Your task to perform on an android device: Show me recent news Image 0: 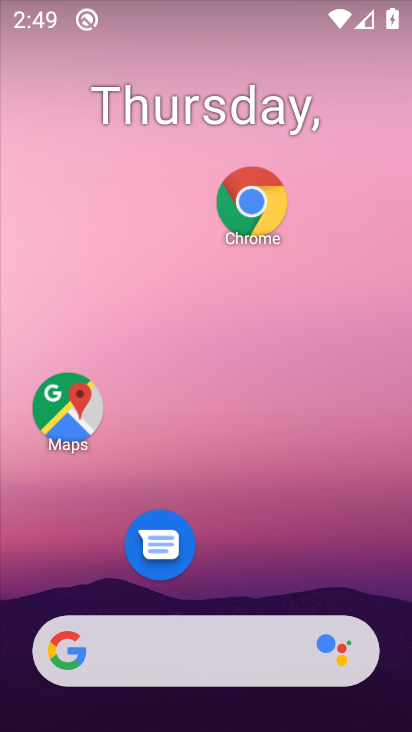
Step 0: drag from (191, 606) to (236, 234)
Your task to perform on an android device: Show me recent news Image 1: 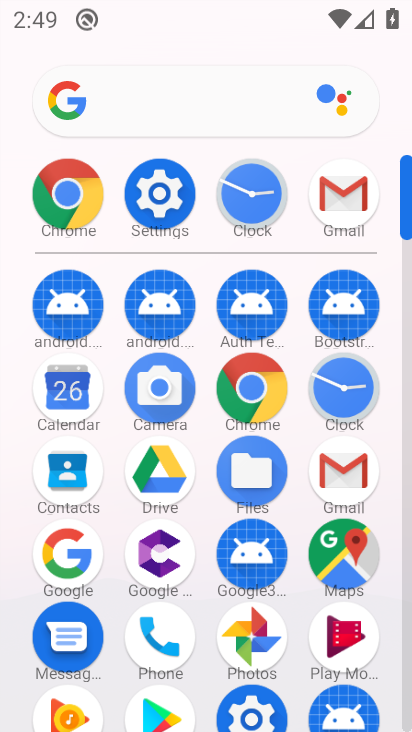
Step 1: click (76, 543)
Your task to perform on an android device: Show me recent news Image 2: 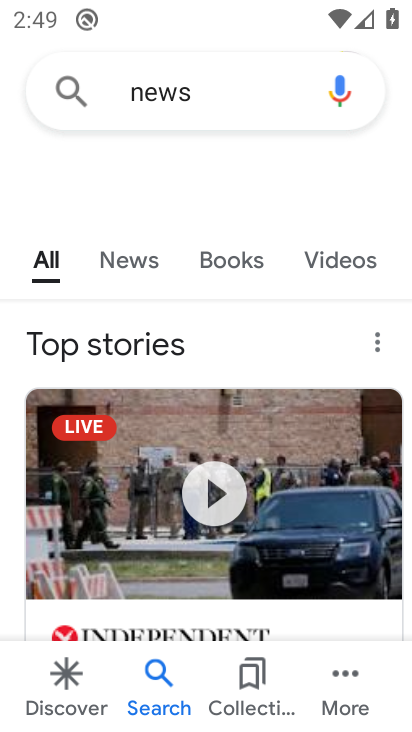
Step 2: click (199, 89)
Your task to perform on an android device: Show me recent news Image 3: 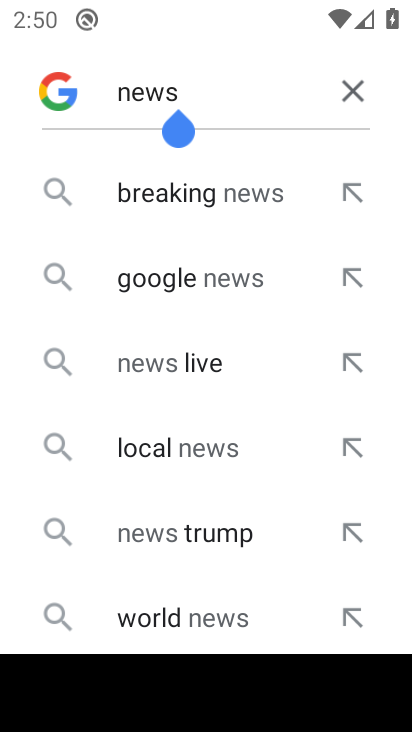
Step 3: click (344, 92)
Your task to perform on an android device: Show me recent news Image 4: 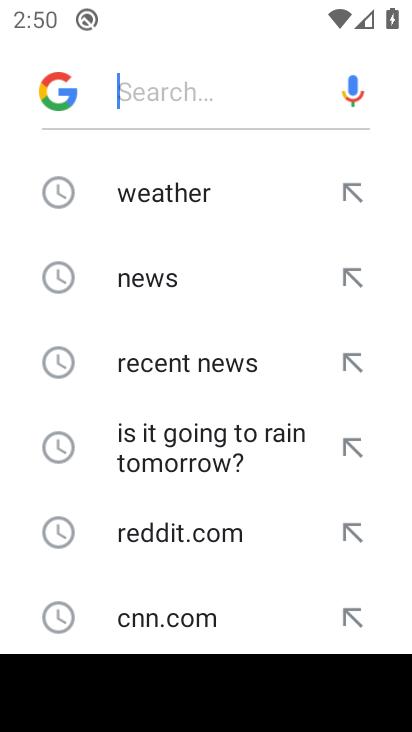
Step 4: click (137, 413)
Your task to perform on an android device: Show me recent news Image 5: 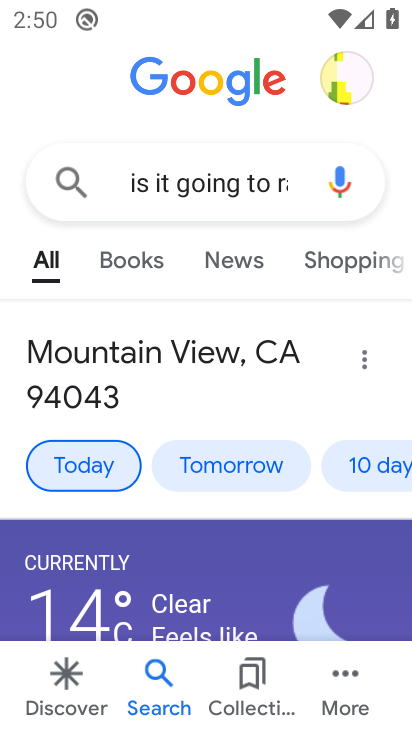
Step 5: click (278, 194)
Your task to perform on an android device: Show me recent news Image 6: 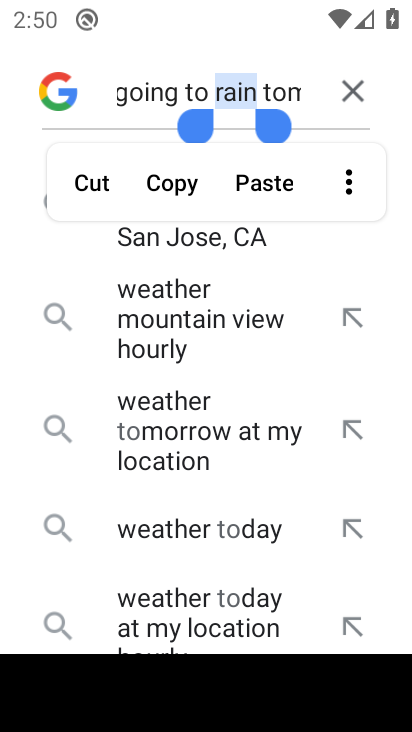
Step 6: click (348, 93)
Your task to perform on an android device: Show me recent news Image 7: 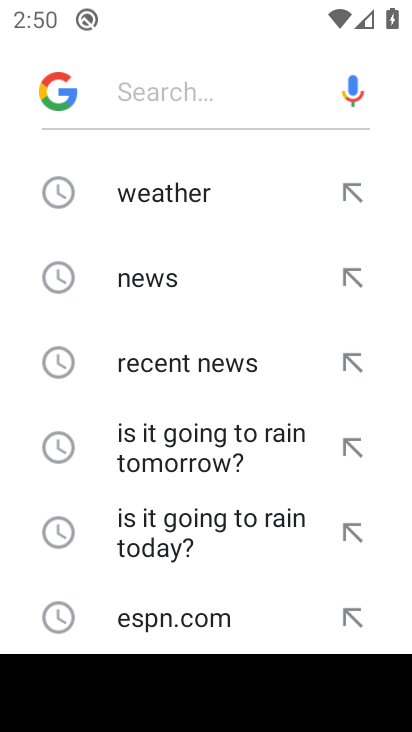
Step 7: click (211, 368)
Your task to perform on an android device: Show me recent news Image 8: 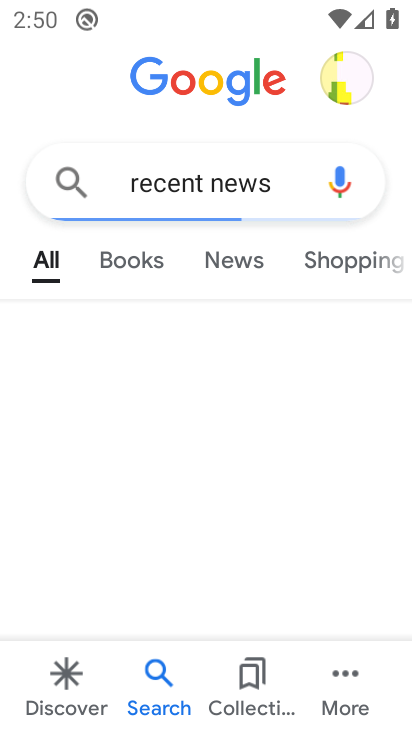
Step 8: click (211, 368)
Your task to perform on an android device: Show me recent news Image 9: 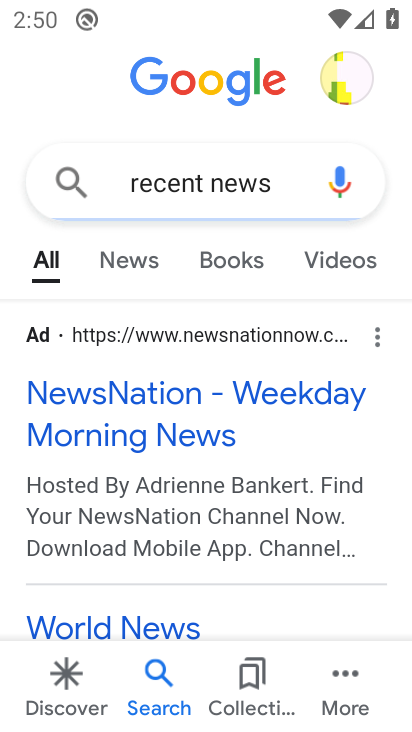
Step 9: click (179, 489)
Your task to perform on an android device: Show me recent news Image 10: 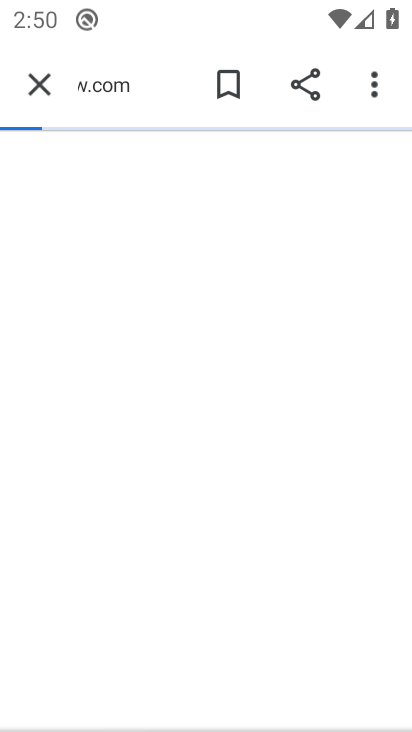
Step 10: click (189, 424)
Your task to perform on an android device: Show me recent news Image 11: 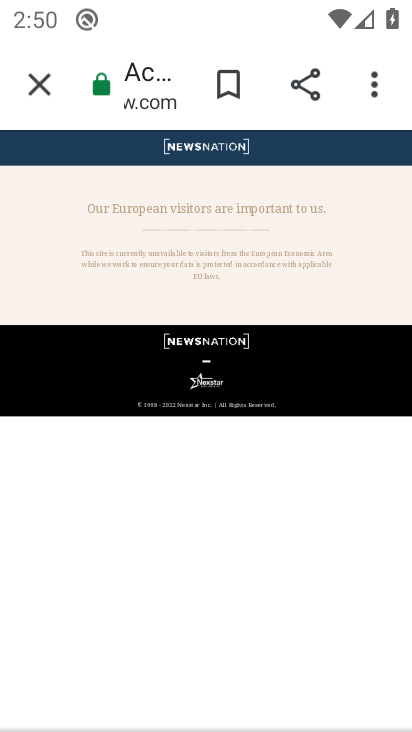
Step 11: task complete